Your task to perform on an android device: turn vacation reply on in the gmail app Image 0: 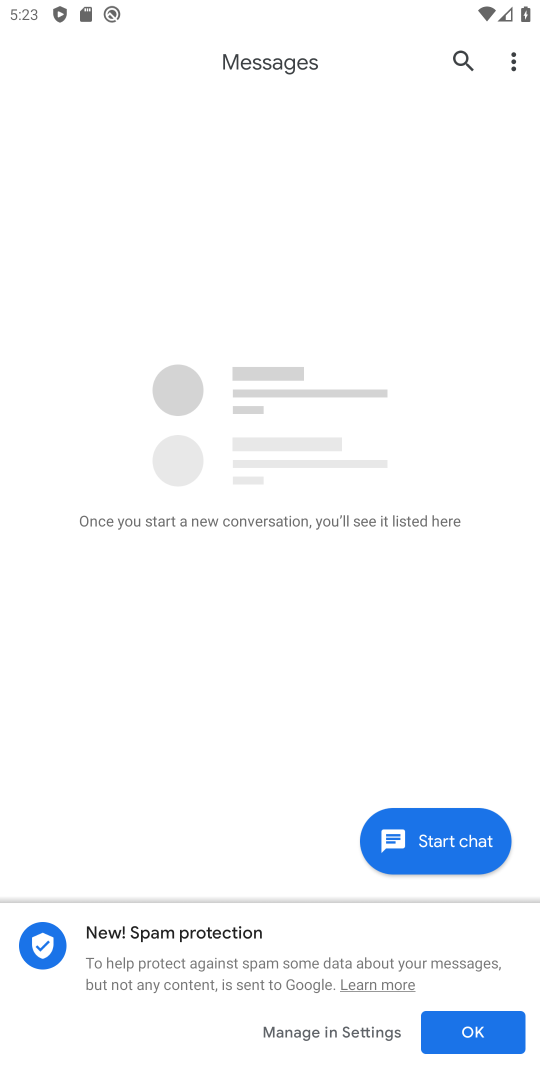
Step 0: press home button
Your task to perform on an android device: turn vacation reply on in the gmail app Image 1: 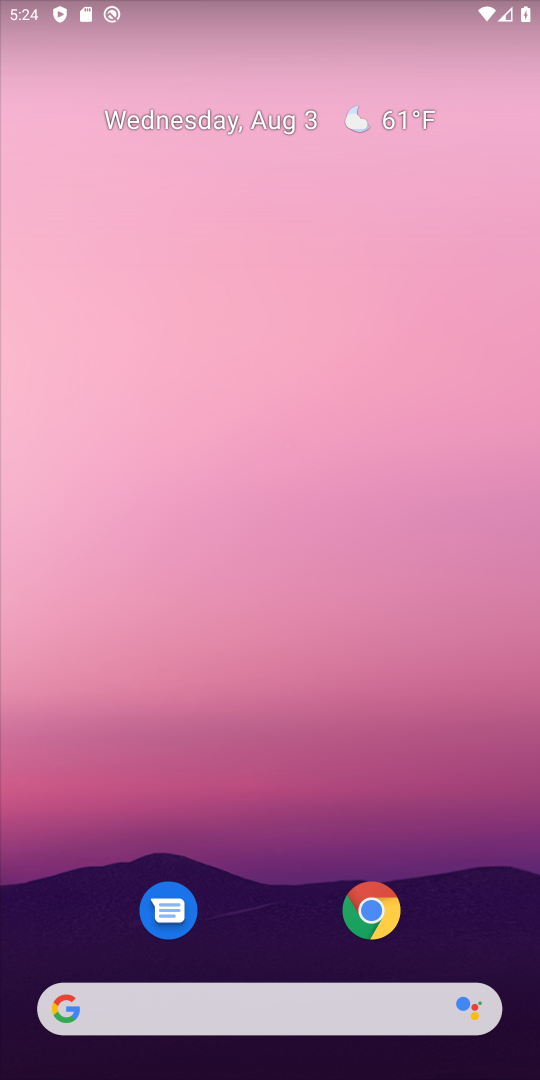
Step 1: drag from (301, 917) to (397, 256)
Your task to perform on an android device: turn vacation reply on in the gmail app Image 2: 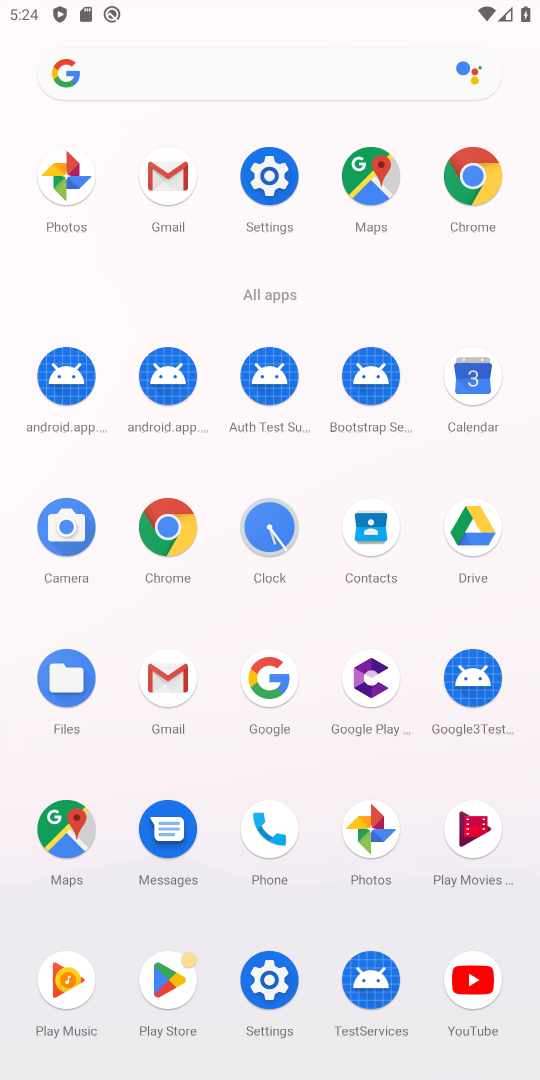
Step 2: click (173, 667)
Your task to perform on an android device: turn vacation reply on in the gmail app Image 3: 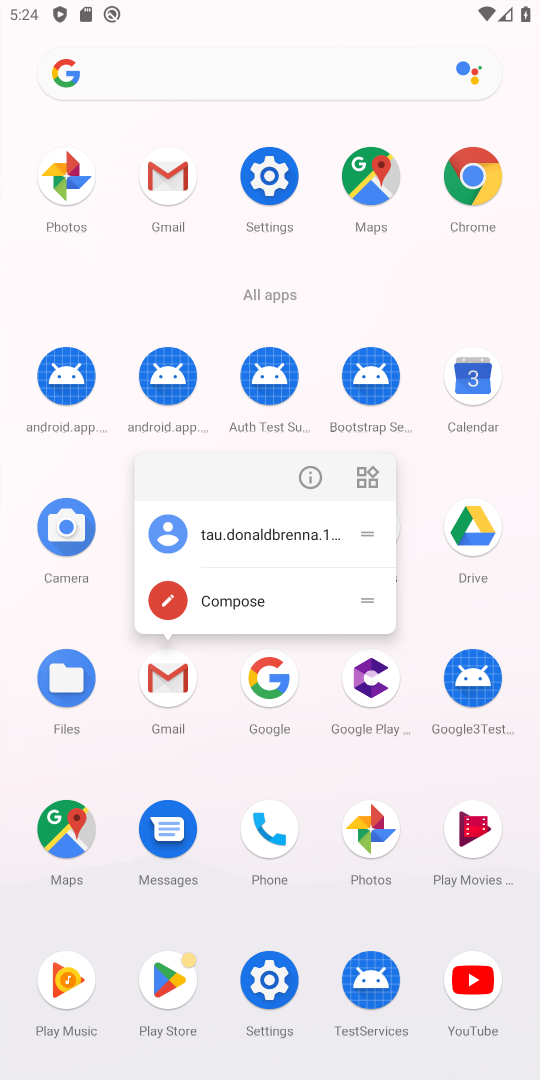
Step 3: click (165, 679)
Your task to perform on an android device: turn vacation reply on in the gmail app Image 4: 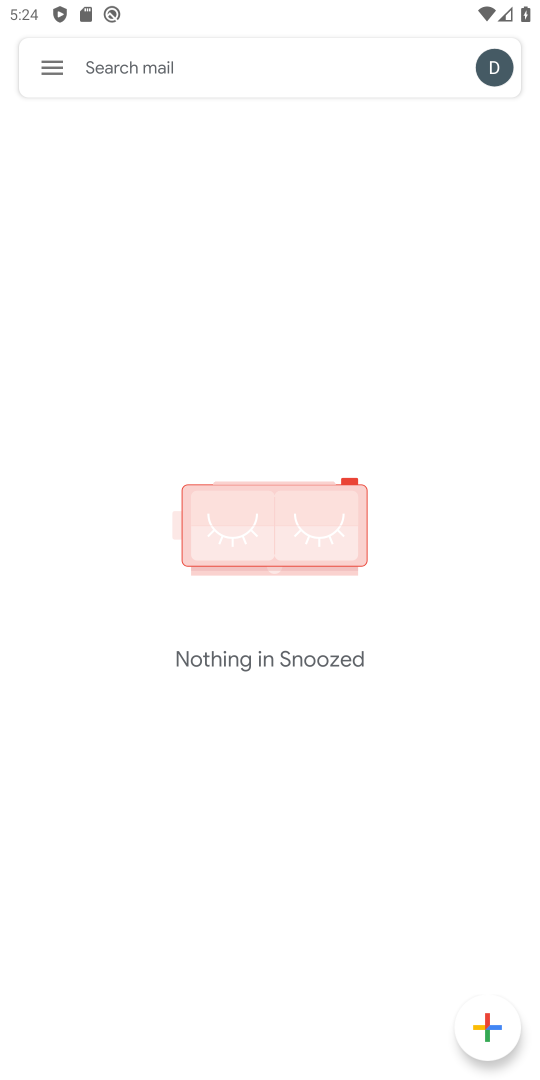
Step 4: click (39, 67)
Your task to perform on an android device: turn vacation reply on in the gmail app Image 5: 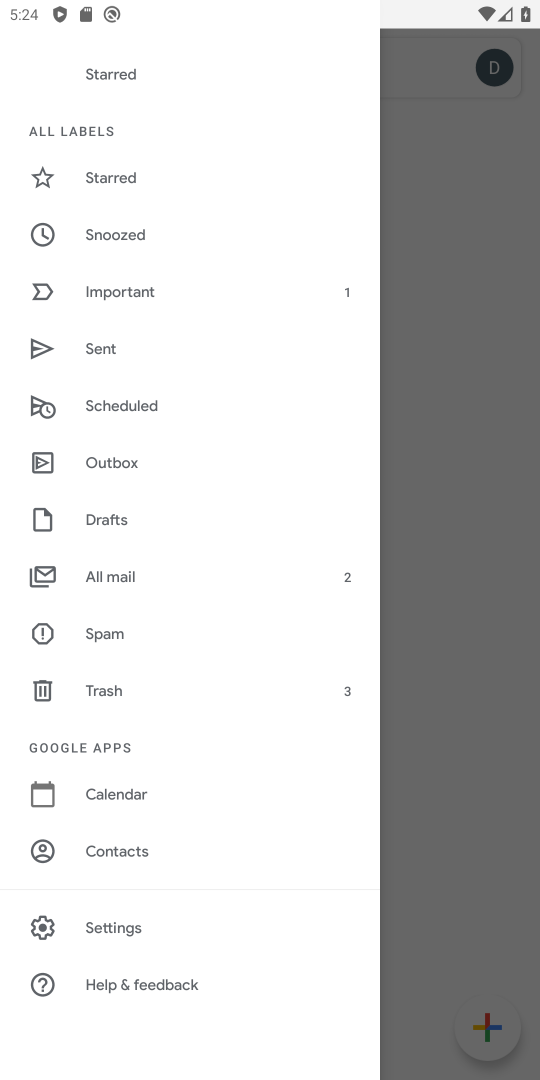
Step 5: click (115, 917)
Your task to perform on an android device: turn vacation reply on in the gmail app Image 6: 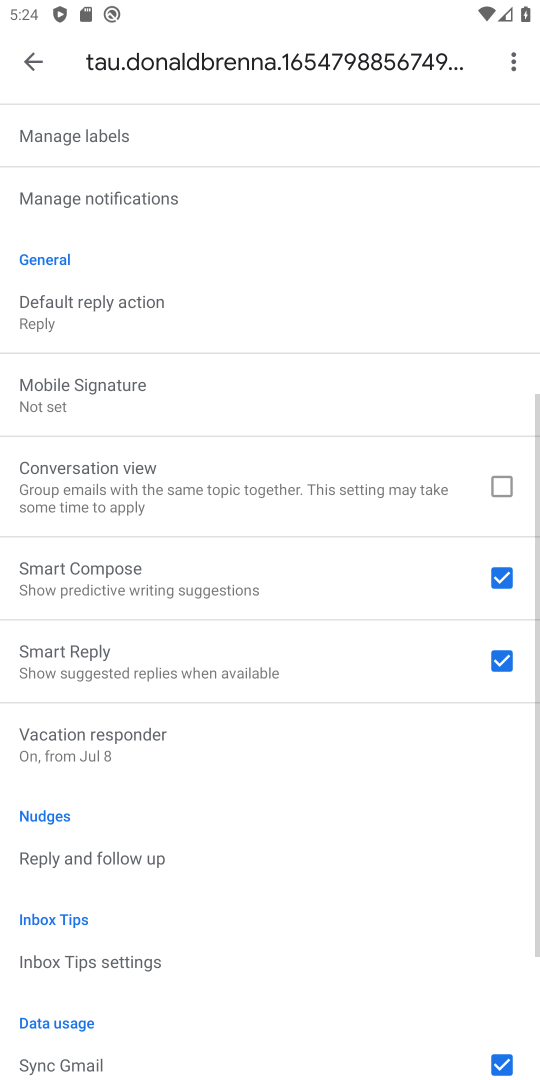
Step 6: drag from (225, 922) to (336, 414)
Your task to perform on an android device: turn vacation reply on in the gmail app Image 7: 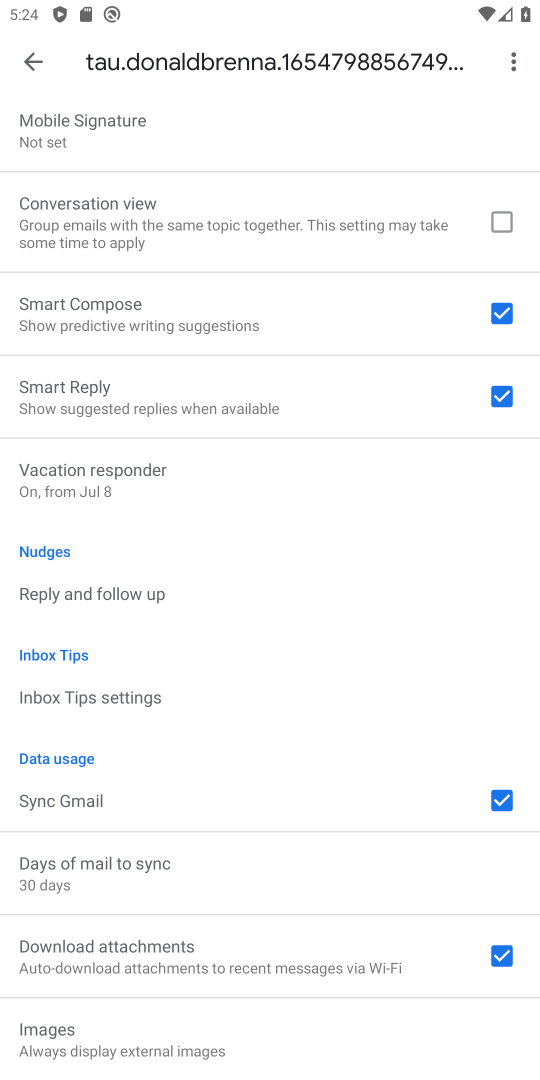
Step 7: click (83, 470)
Your task to perform on an android device: turn vacation reply on in the gmail app Image 8: 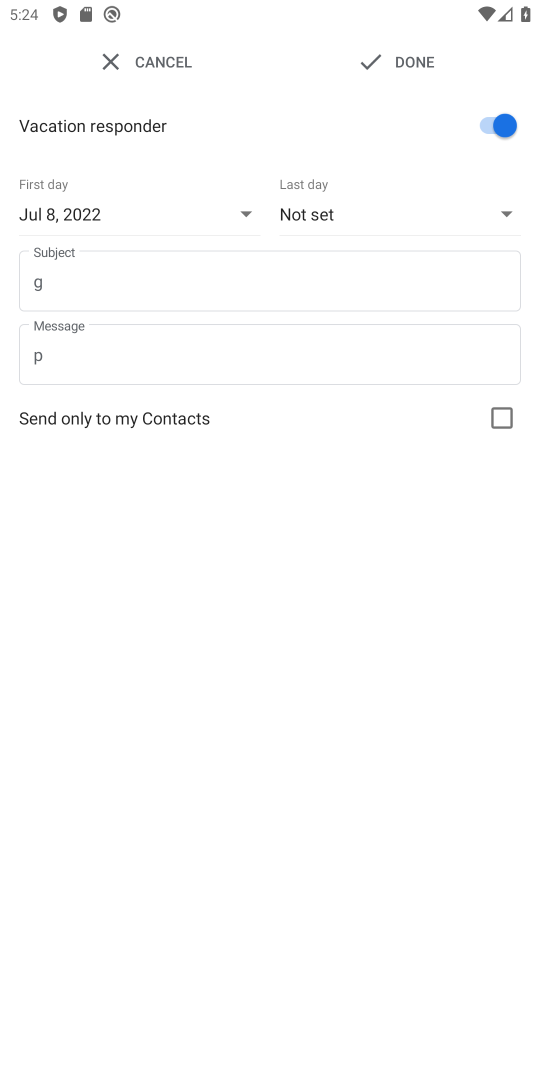
Step 8: click (424, 53)
Your task to perform on an android device: turn vacation reply on in the gmail app Image 9: 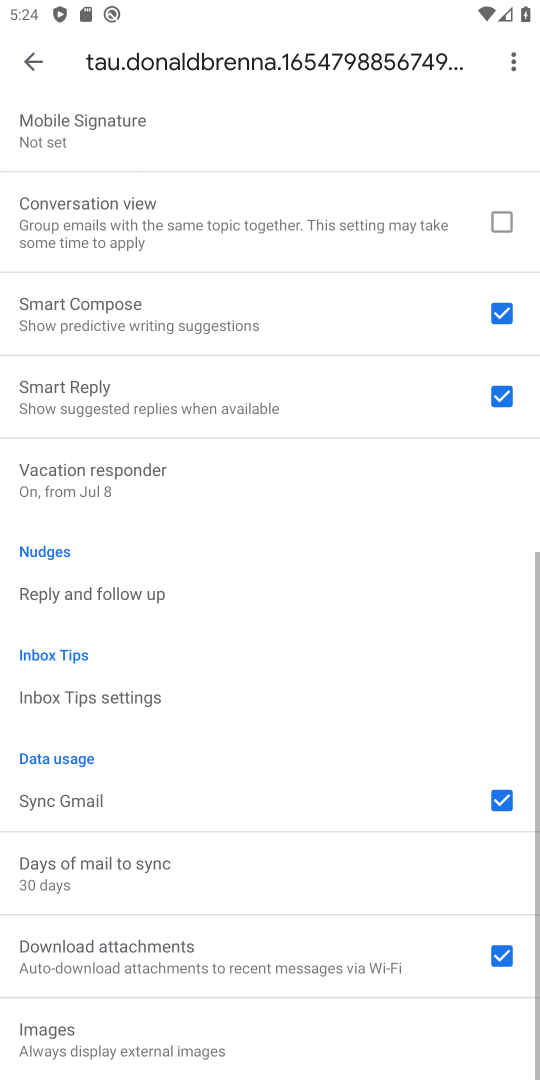
Step 9: task complete